Your task to perform on an android device: Open Yahoo.com Image 0: 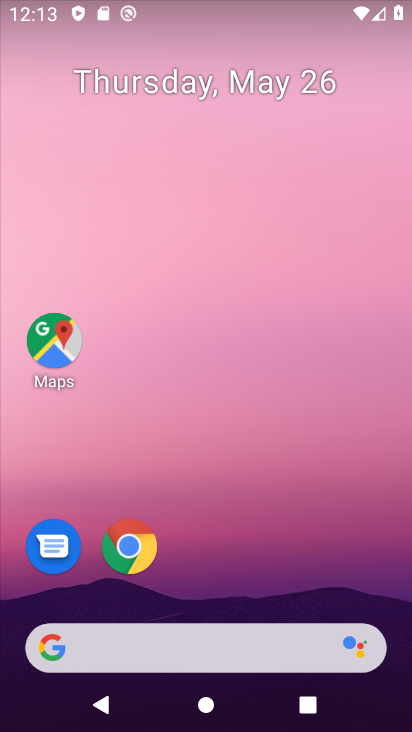
Step 0: drag from (399, 652) to (315, 111)
Your task to perform on an android device: Open Yahoo.com Image 1: 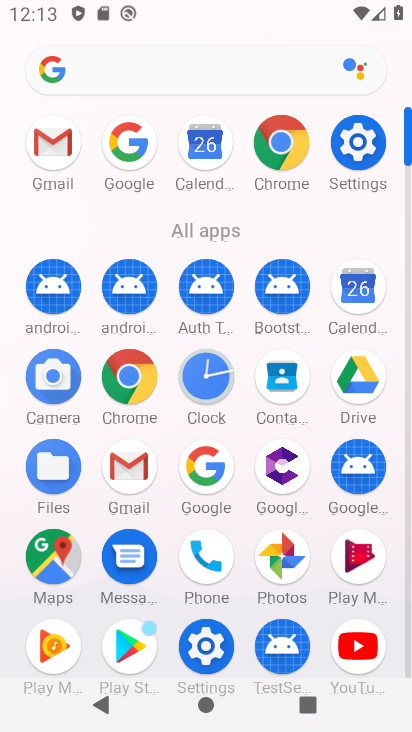
Step 1: click (239, 470)
Your task to perform on an android device: Open Yahoo.com Image 2: 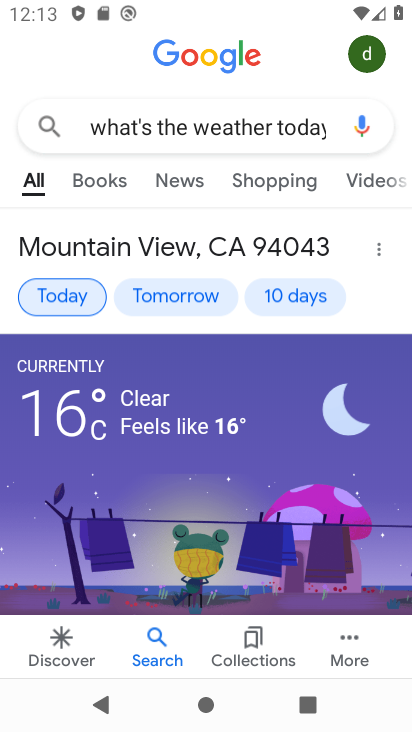
Step 2: press back button
Your task to perform on an android device: Open Yahoo.com Image 3: 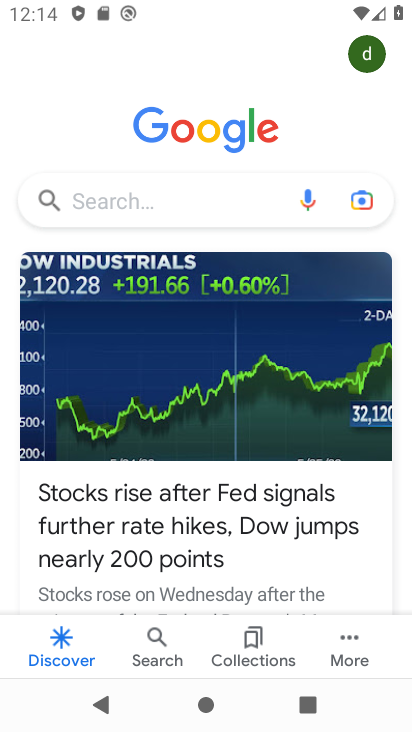
Step 3: click (160, 188)
Your task to perform on an android device: Open Yahoo.com Image 4: 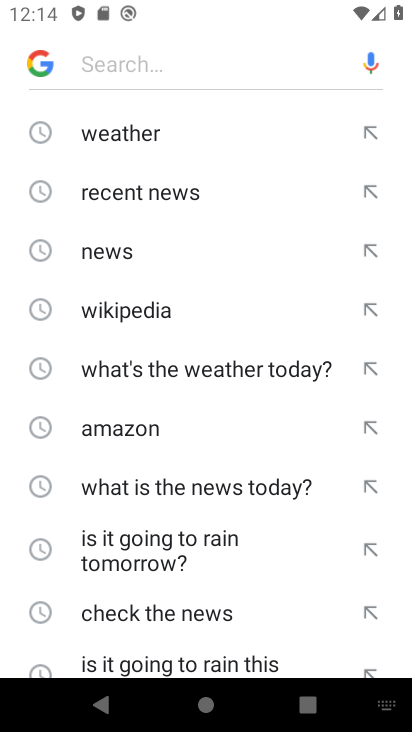
Step 4: drag from (177, 599) to (188, 117)
Your task to perform on an android device: Open Yahoo.com Image 5: 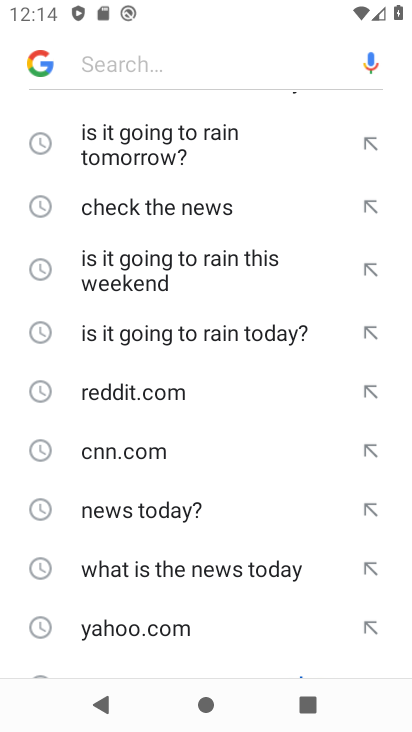
Step 5: click (162, 631)
Your task to perform on an android device: Open Yahoo.com Image 6: 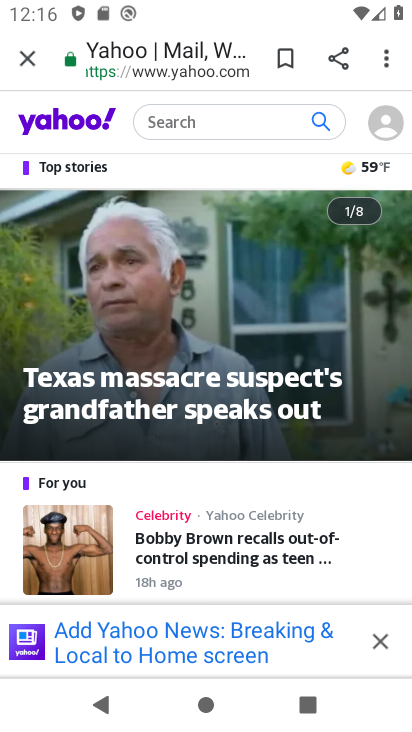
Step 6: task complete